Your task to perform on an android device: open app "Facebook Lite" (install if not already installed) Image 0: 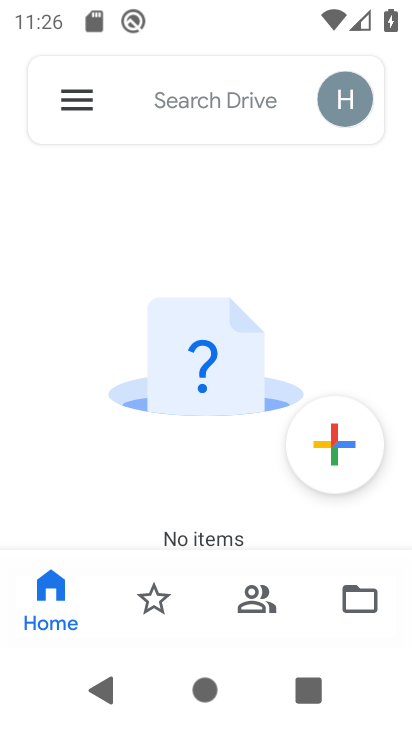
Step 0: press home button
Your task to perform on an android device: open app "Facebook Lite" (install if not already installed) Image 1: 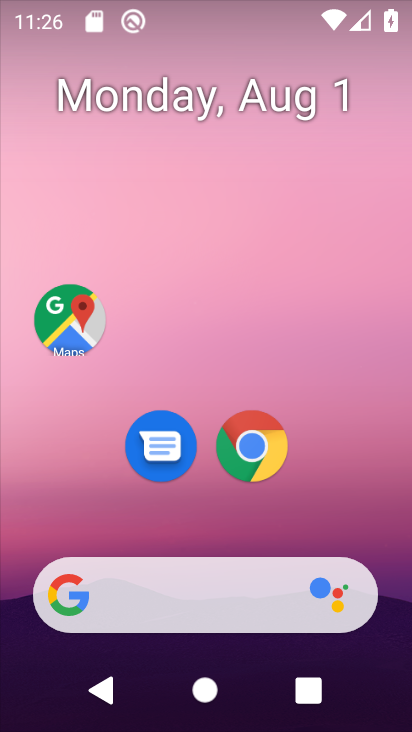
Step 1: drag from (199, 507) to (203, 147)
Your task to perform on an android device: open app "Facebook Lite" (install if not already installed) Image 2: 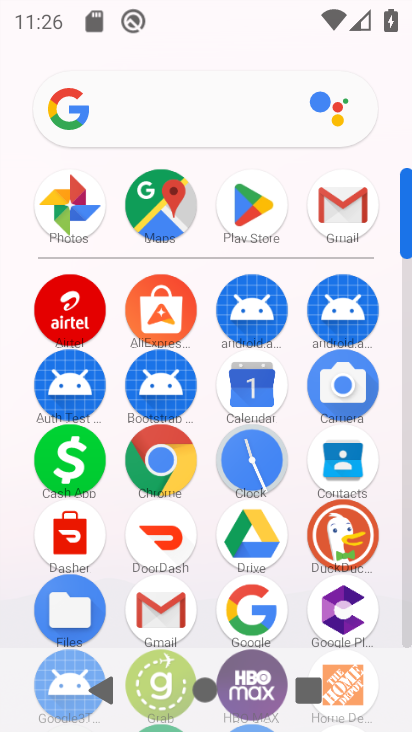
Step 2: click (244, 233)
Your task to perform on an android device: open app "Facebook Lite" (install if not already installed) Image 3: 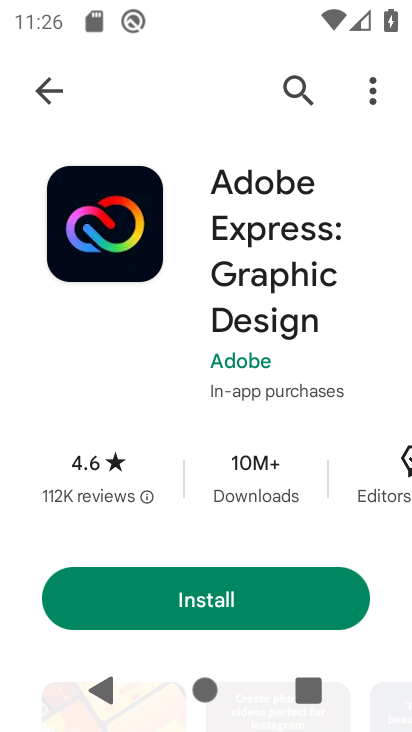
Step 3: click (292, 92)
Your task to perform on an android device: open app "Facebook Lite" (install if not already installed) Image 4: 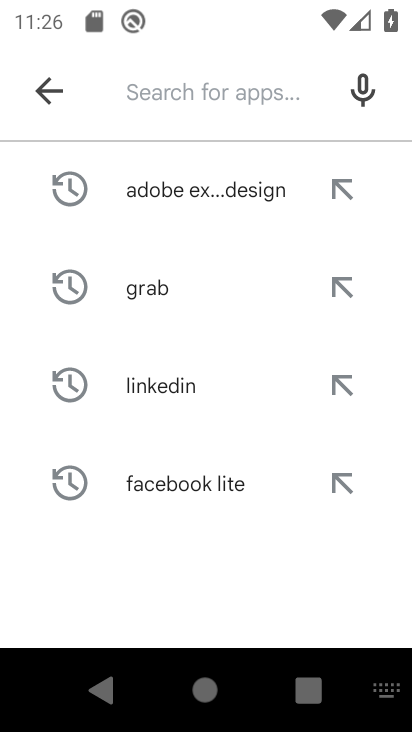
Step 4: type "Facebook Lite"
Your task to perform on an android device: open app "Facebook Lite" (install if not already installed) Image 5: 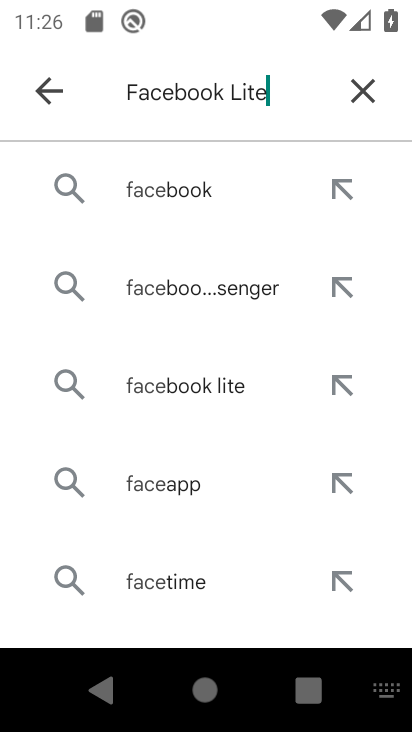
Step 5: type ""
Your task to perform on an android device: open app "Facebook Lite" (install if not already installed) Image 6: 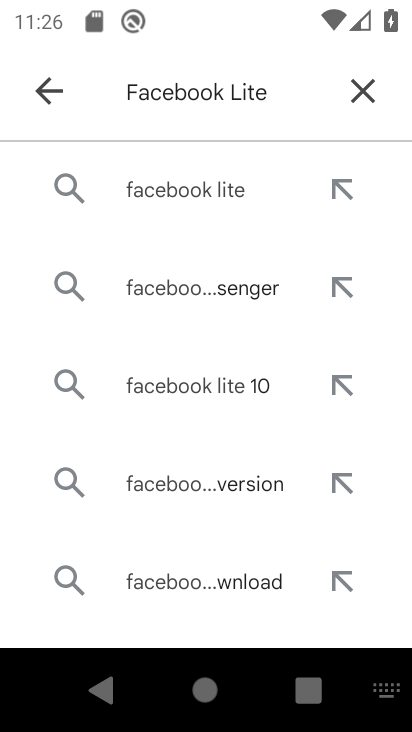
Step 6: click (175, 184)
Your task to perform on an android device: open app "Facebook Lite" (install if not already installed) Image 7: 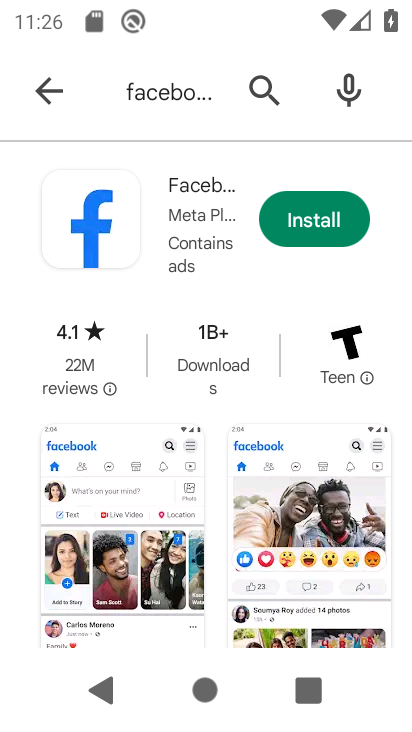
Step 7: click (331, 228)
Your task to perform on an android device: open app "Facebook Lite" (install if not already installed) Image 8: 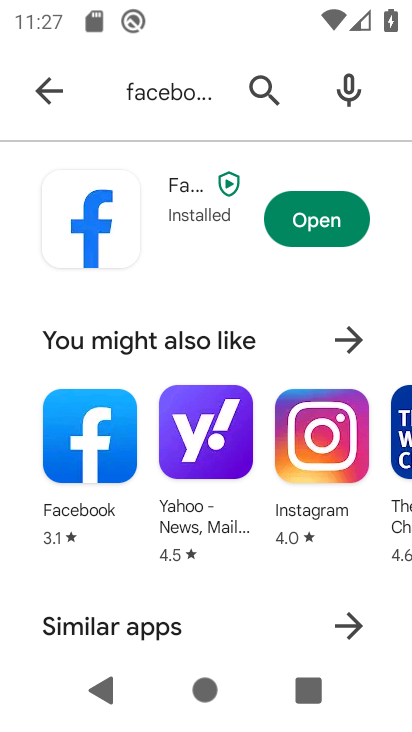
Step 8: click (331, 228)
Your task to perform on an android device: open app "Facebook Lite" (install if not already installed) Image 9: 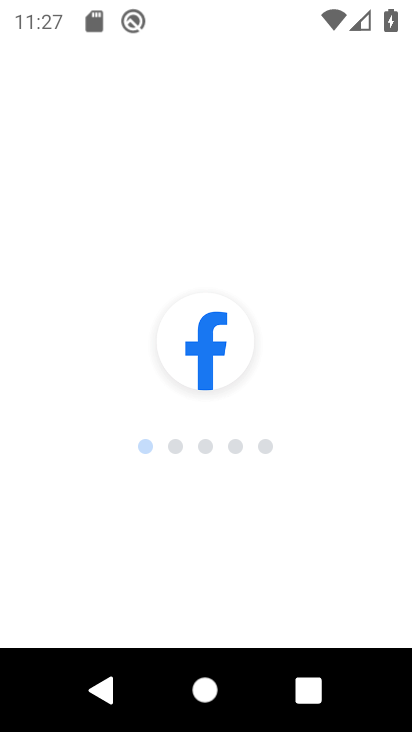
Step 9: task complete